Your task to perform on an android device: Find coffee shops on Maps Image 0: 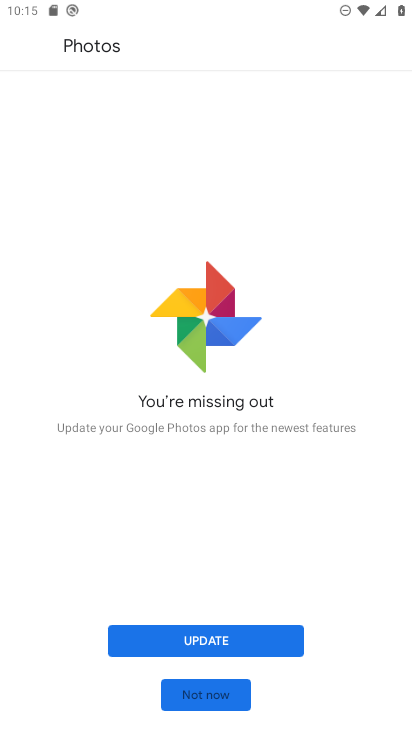
Step 0: press home button
Your task to perform on an android device: Find coffee shops on Maps Image 1: 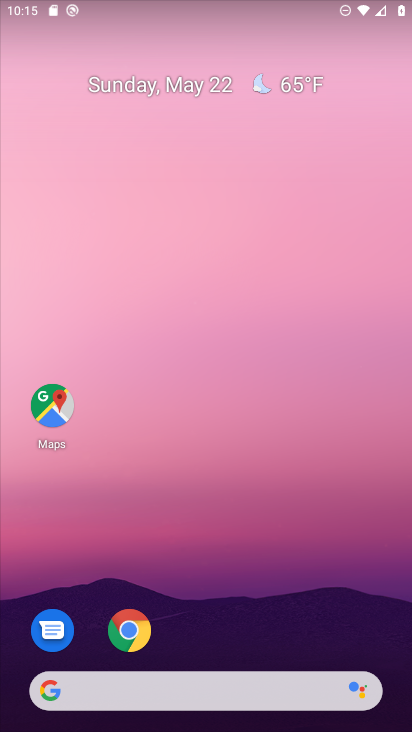
Step 1: click (52, 406)
Your task to perform on an android device: Find coffee shops on Maps Image 2: 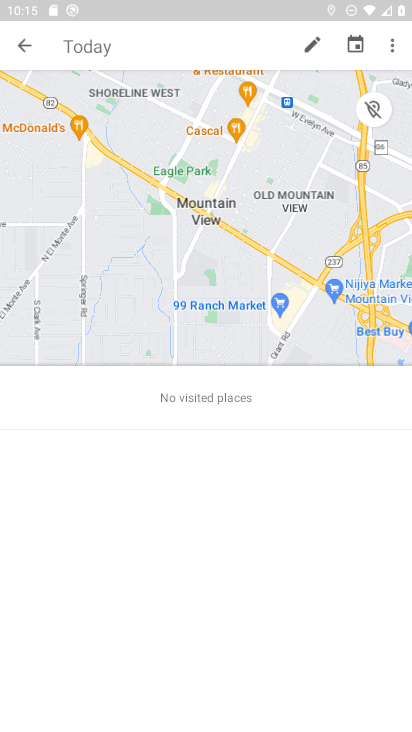
Step 2: click (28, 48)
Your task to perform on an android device: Find coffee shops on Maps Image 3: 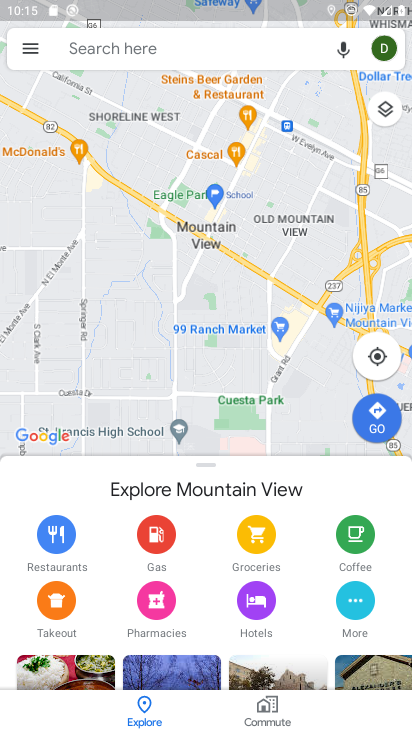
Step 3: click (127, 44)
Your task to perform on an android device: Find coffee shops on Maps Image 4: 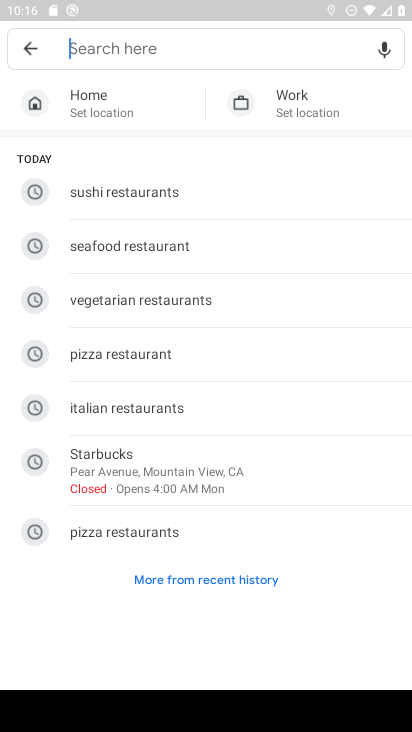
Step 4: type "coffee"
Your task to perform on an android device: Find coffee shops on Maps Image 5: 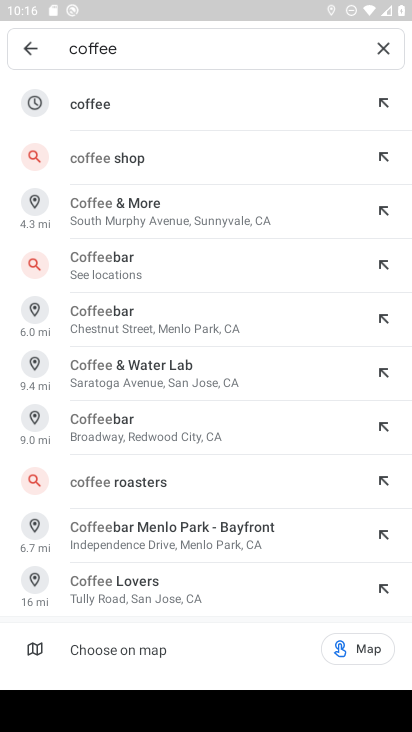
Step 5: click (114, 148)
Your task to perform on an android device: Find coffee shops on Maps Image 6: 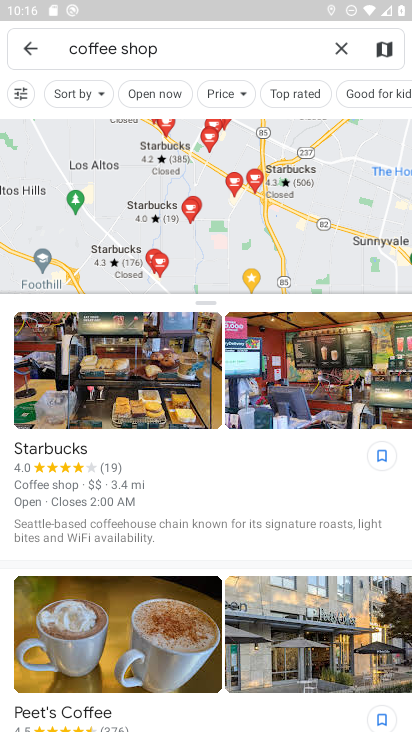
Step 6: task complete